Your task to perform on an android device: open wifi settings Image 0: 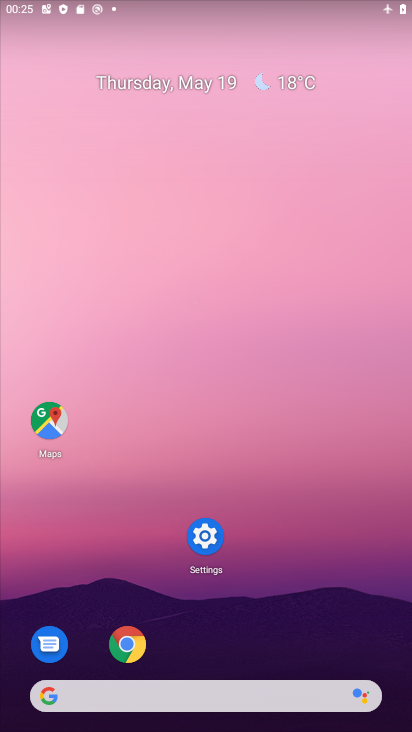
Step 0: drag from (297, 603) to (285, 125)
Your task to perform on an android device: open wifi settings Image 1: 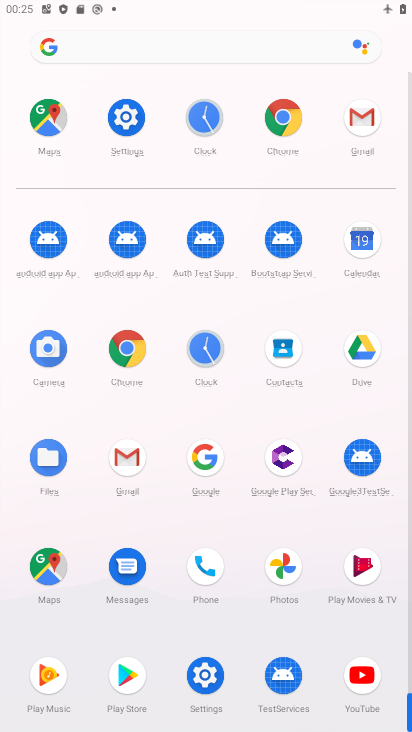
Step 1: click (128, 117)
Your task to perform on an android device: open wifi settings Image 2: 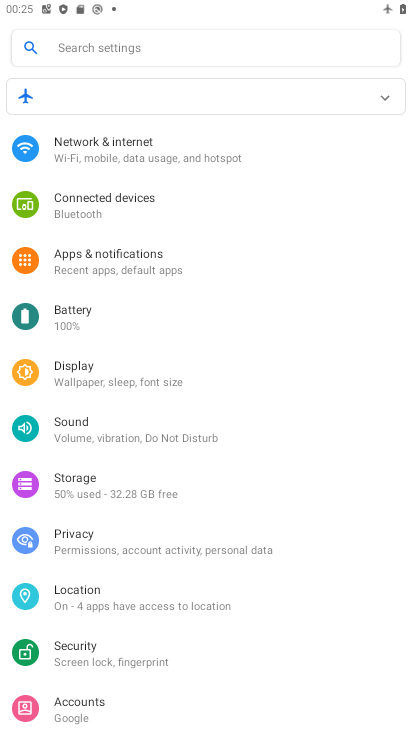
Step 2: click (118, 139)
Your task to perform on an android device: open wifi settings Image 3: 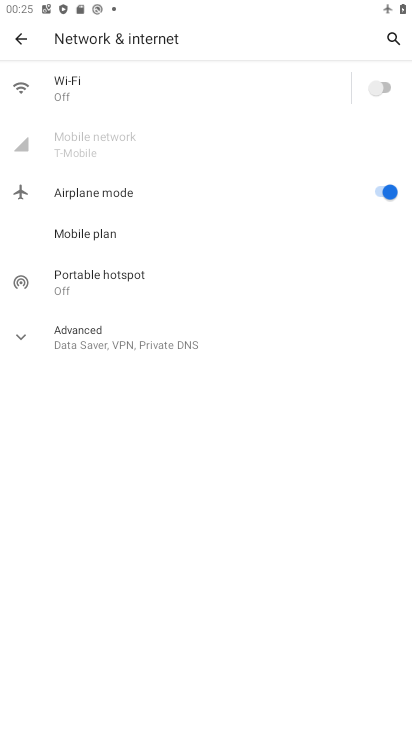
Step 3: click (135, 79)
Your task to perform on an android device: open wifi settings Image 4: 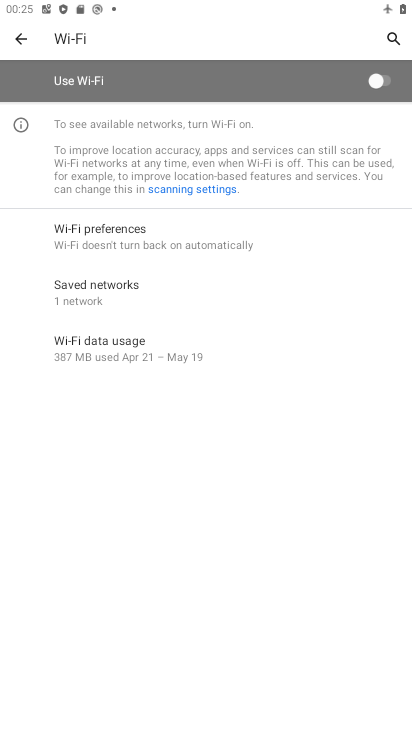
Step 4: click (385, 79)
Your task to perform on an android device: open wifi settings Image 5: 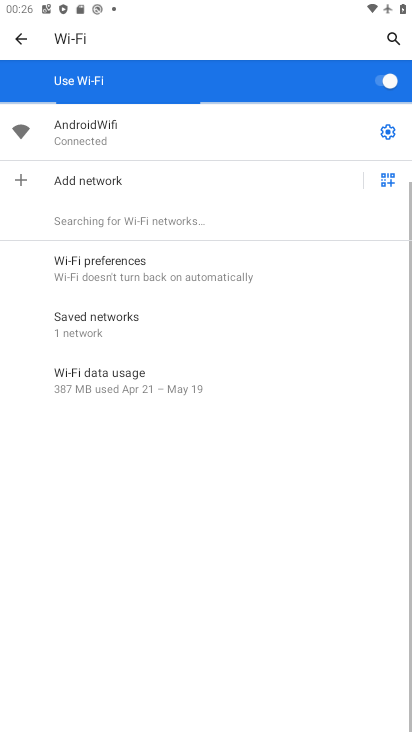
Step 5: click (396, 132)
Your task to perform on an android device: open wifi settings Image 6: 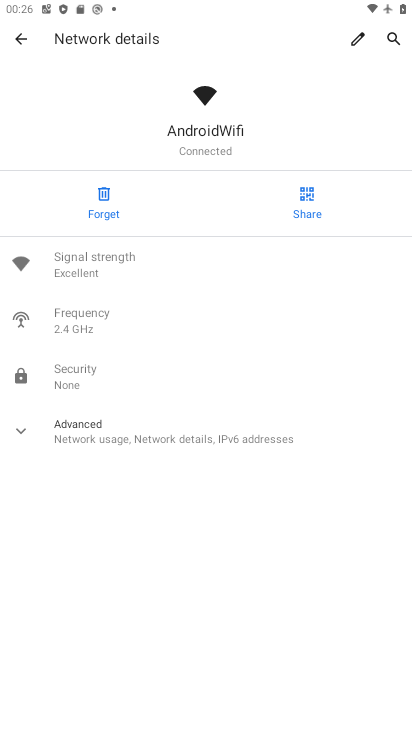
Step 6: task complete